Your task to perform on an android device: Add macbook air to the cart on bestbuy Image 0: 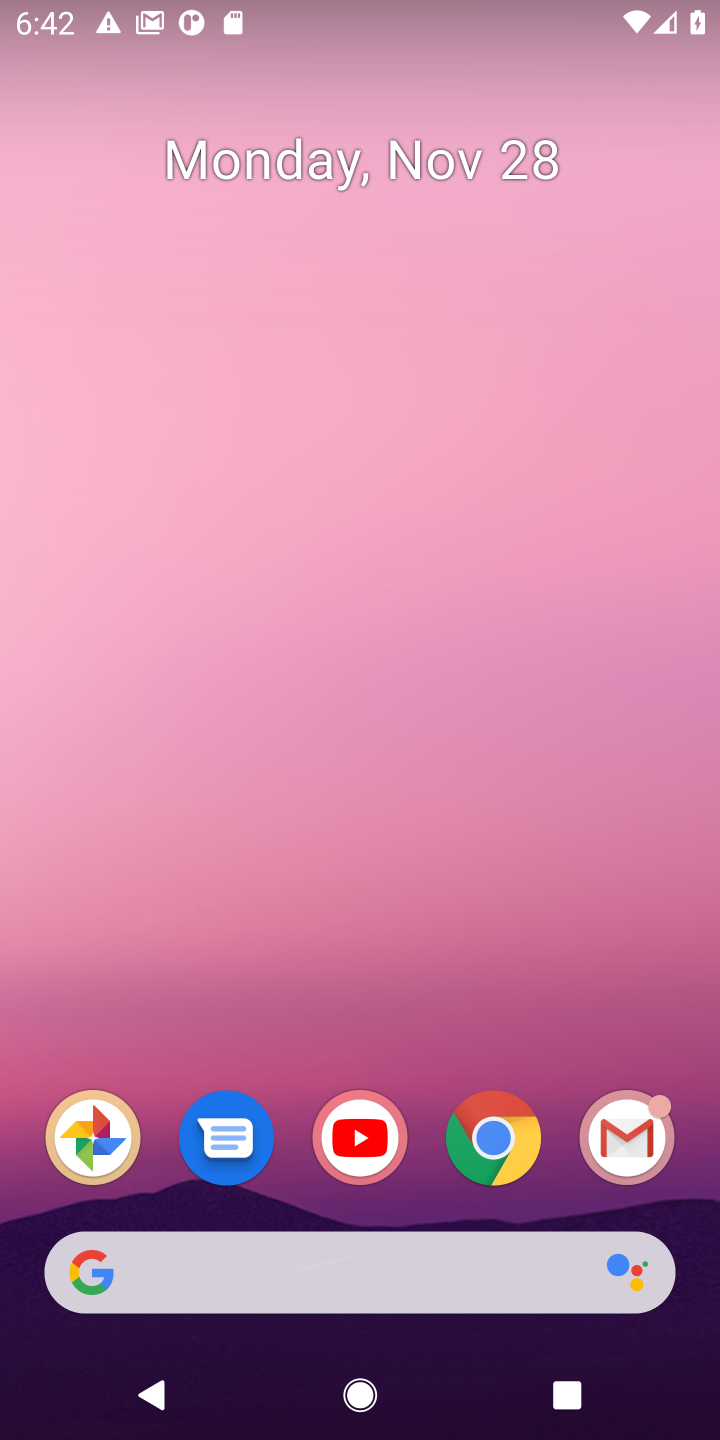
Step 0: click (480, 1142)
Your task to perform on an android device: Add macbook air to the cart on bestbuy Image 1: 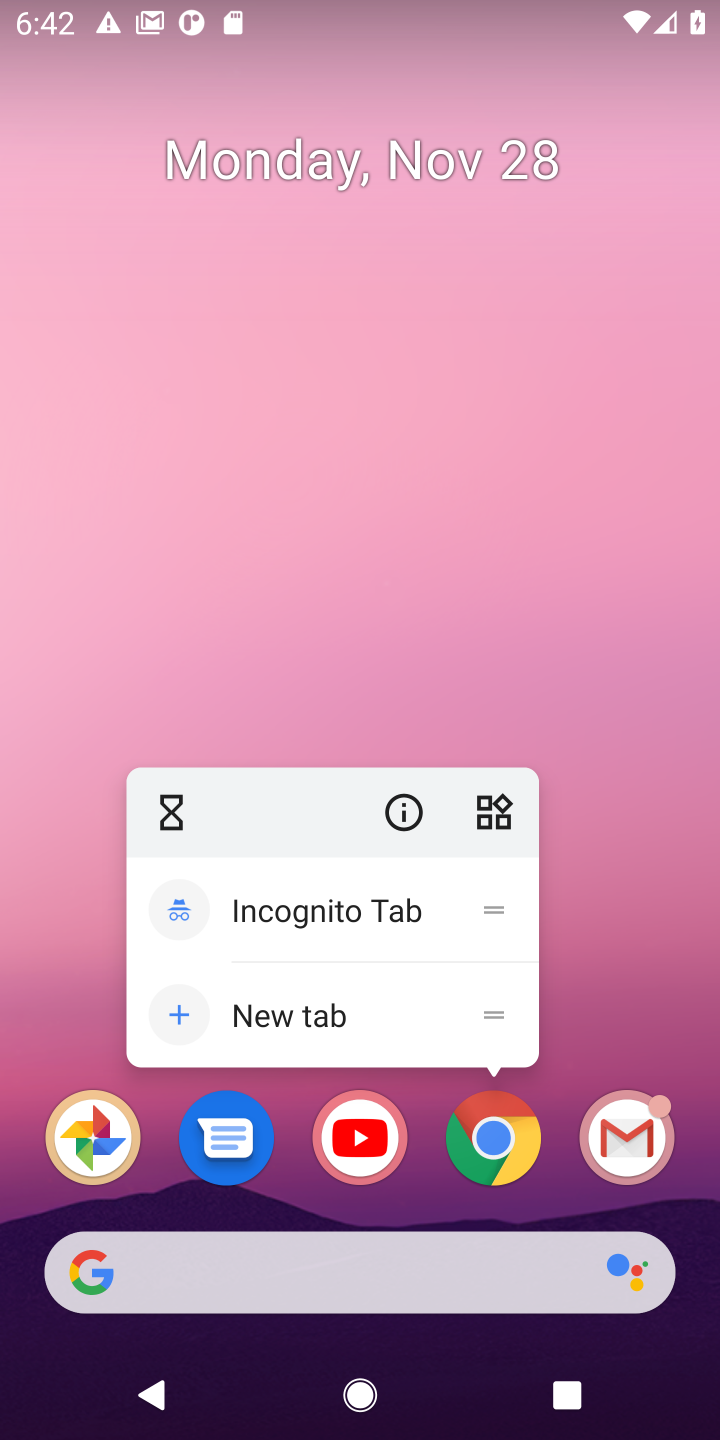
Step 1: click (504, 1147)
Your task to perform on an android device: Add macbook air to the cart on bestbuy Image 2: 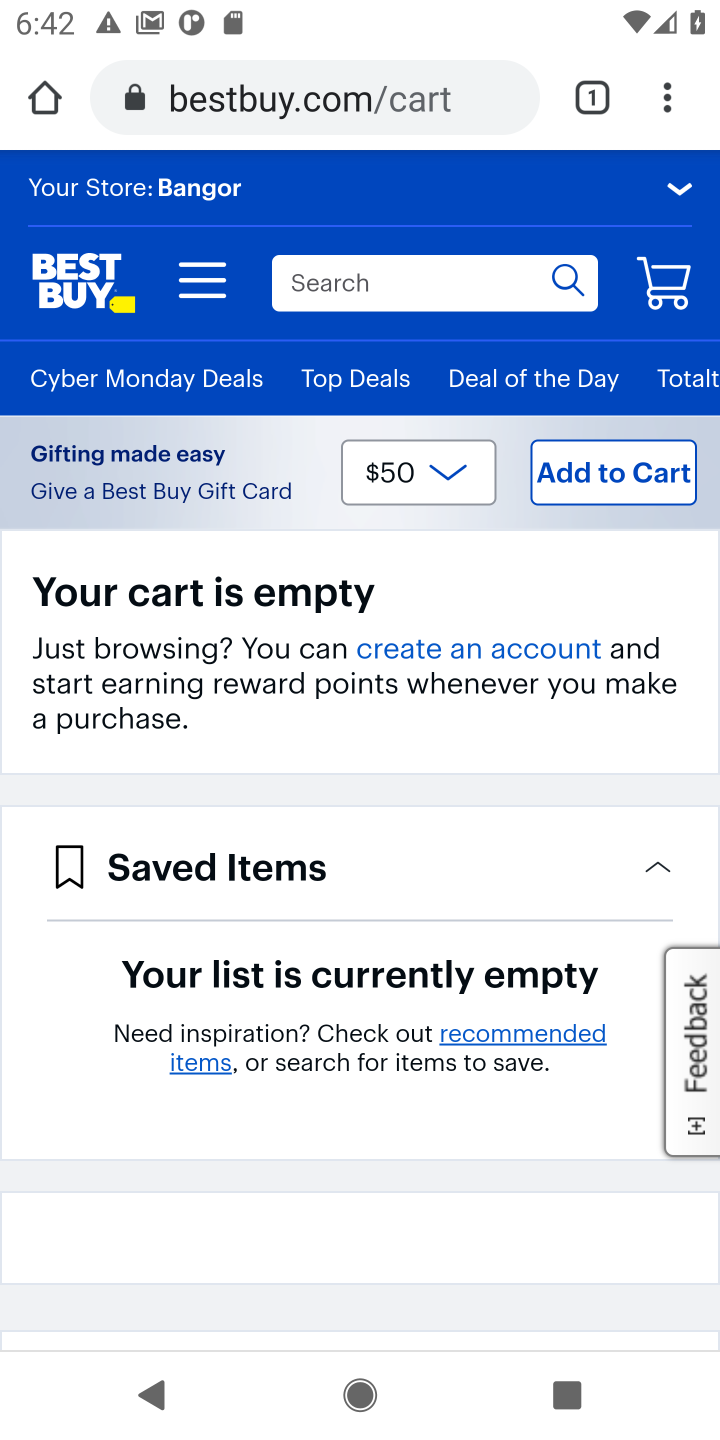
Step 2: click (371, 284)
Your task to perform on an android device: Add macbook air to the cart on bestbuy Image 3: 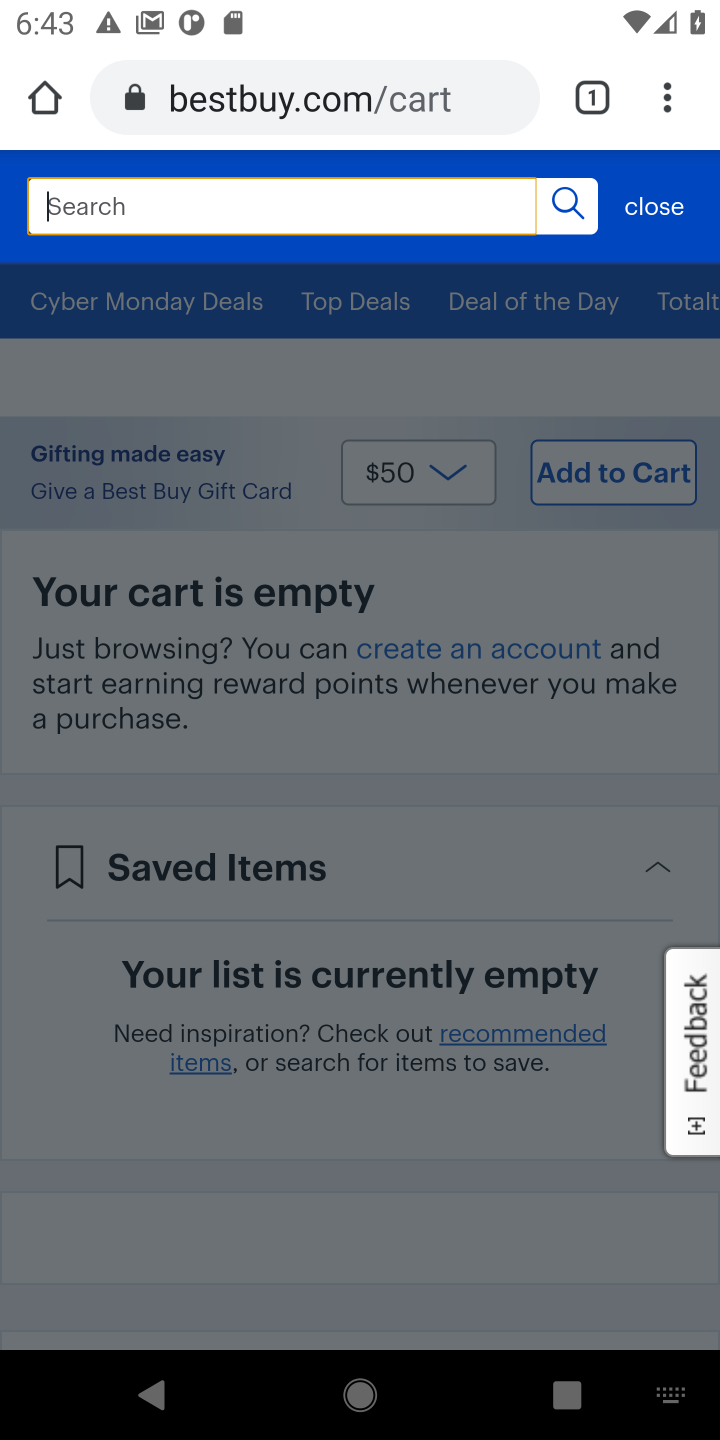
Step 3: type "macbook air"
Your task to perform on an android device: Add macbook air to the cart on bestbuy Image 4: 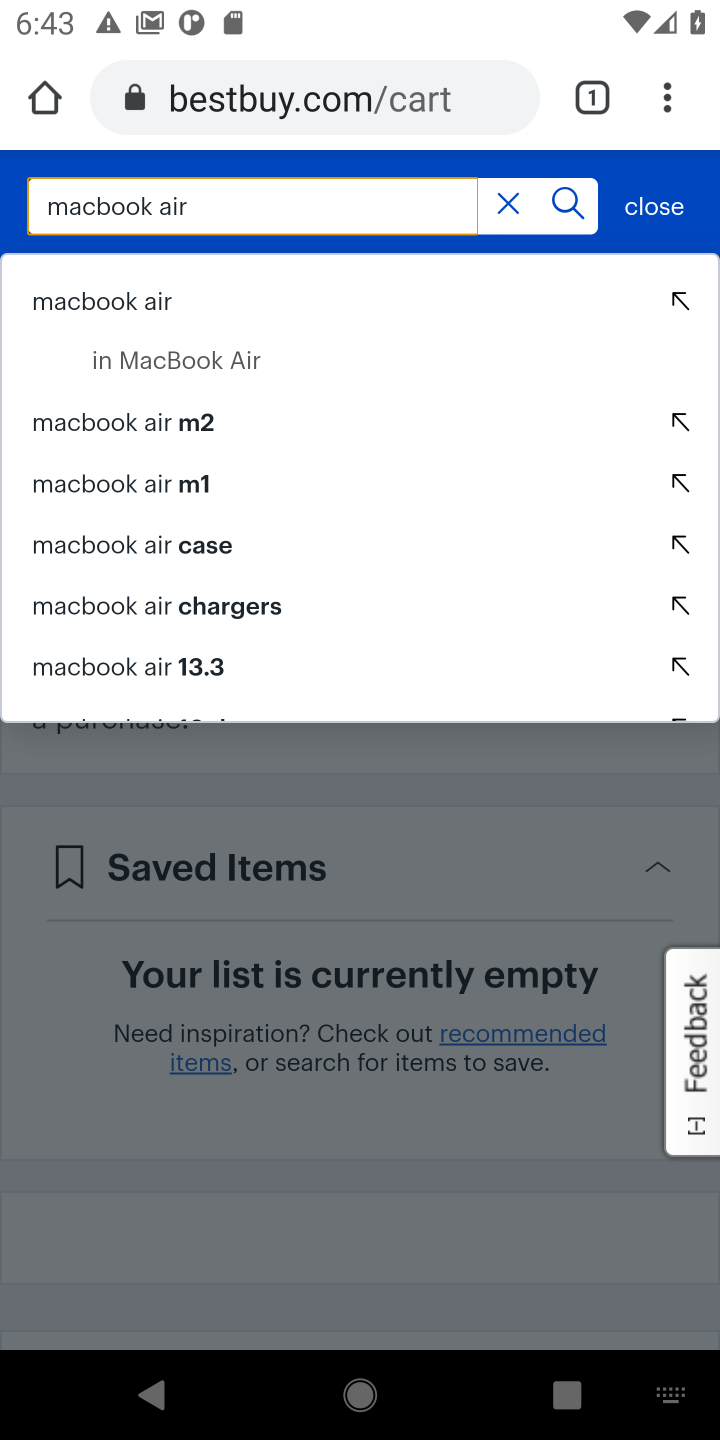
Step 4: click (145, 319)
Your task to perform on an android device: Add macbook air to the cart on bestbuy Image 5: 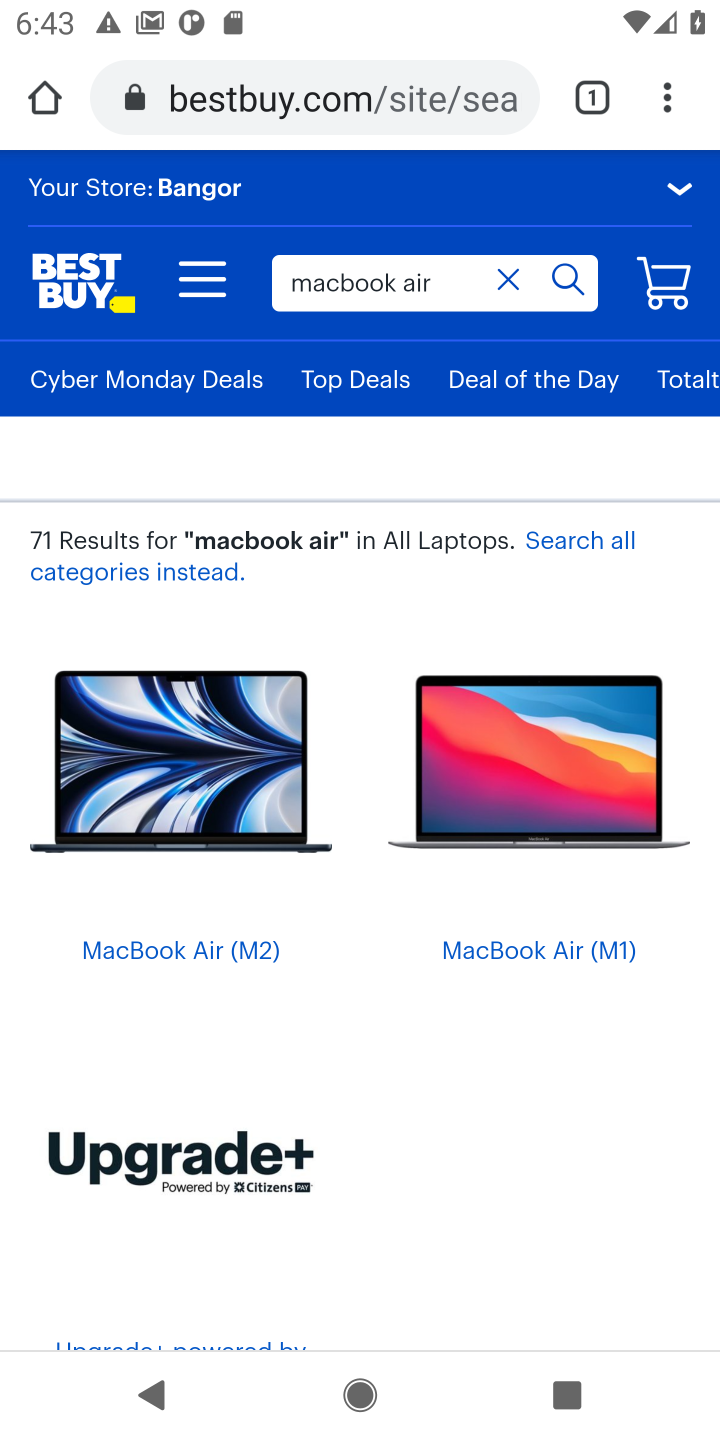
Step 5: drag from (371, 1086) to (341, 623)
Your task to perform on an android device: Add macbook air to the cart on bestbuy Image 6: 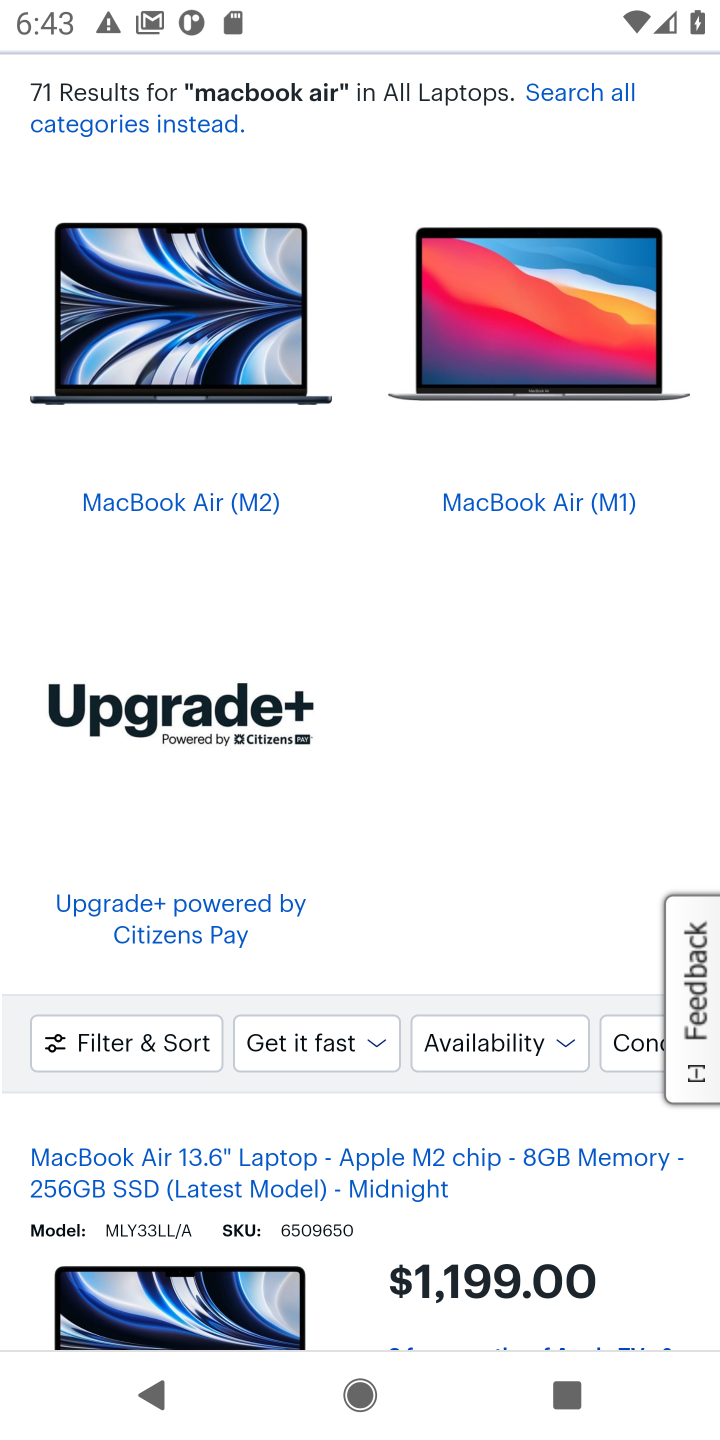
Step 6: drag from (324, 1029) to (342, 498)
Your task to perform on an android device: Add macbook air to the cart on bestbuy Image 7: 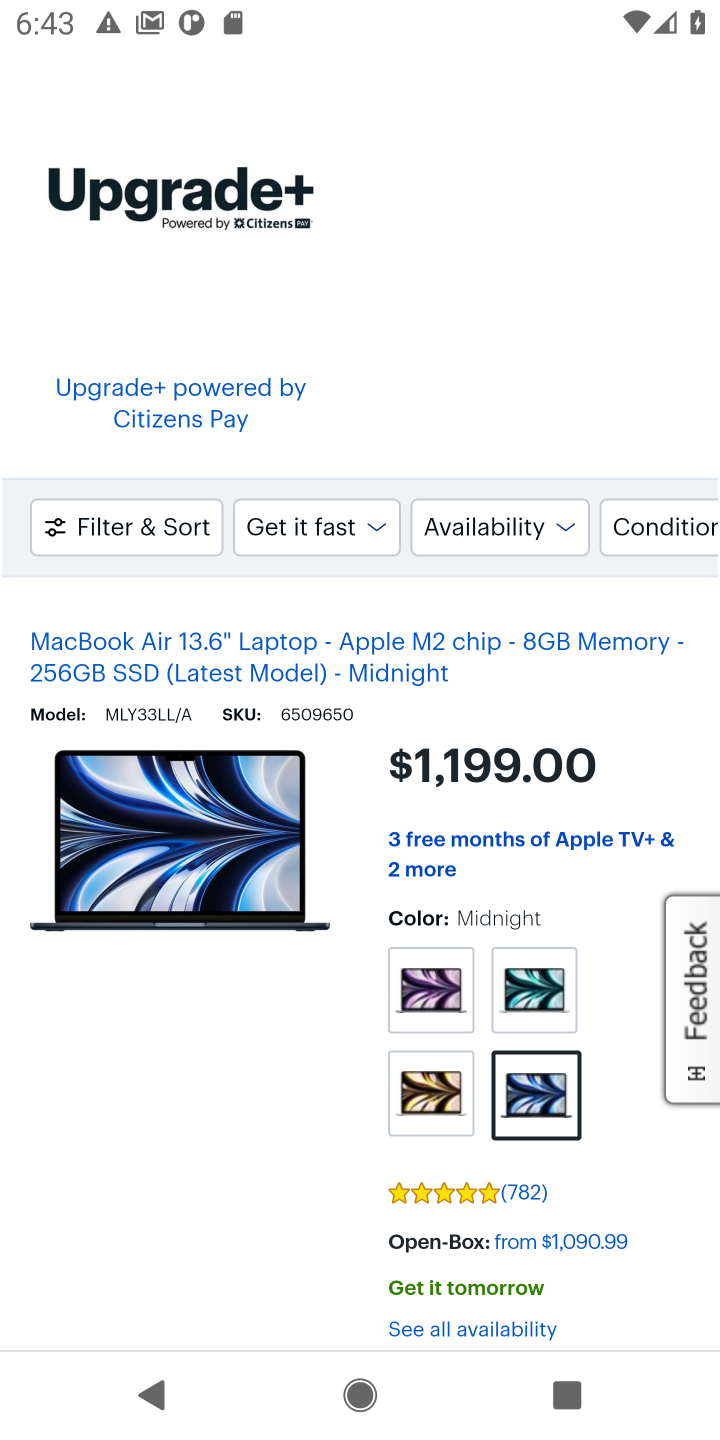
Step 7: drag from (287, 930) to (306, 471)
Your task to perform on an android device: Add macbook air to the cart on bestbuy Image 8: 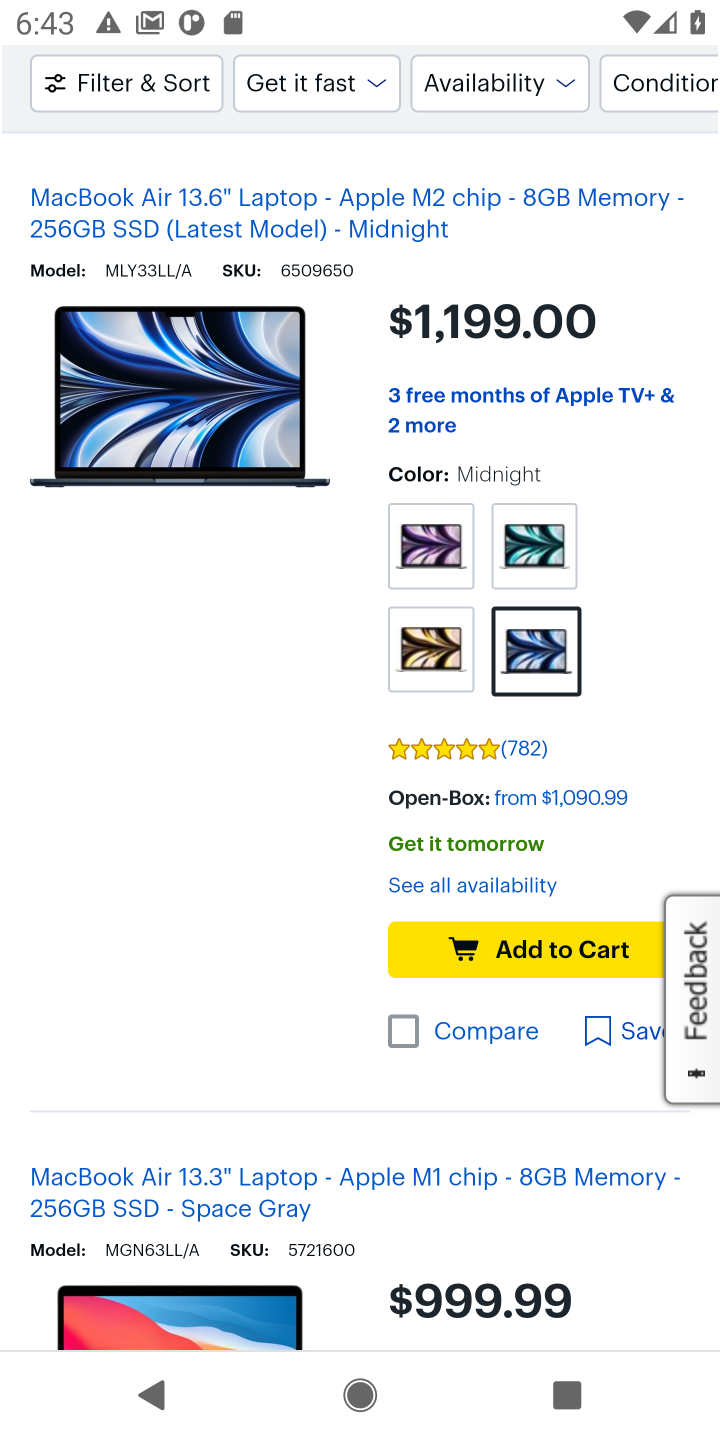
Step 8: click (527, 947)
Your task to perform on an android device: Add macbook air to the cart on bestbuy Image 9: 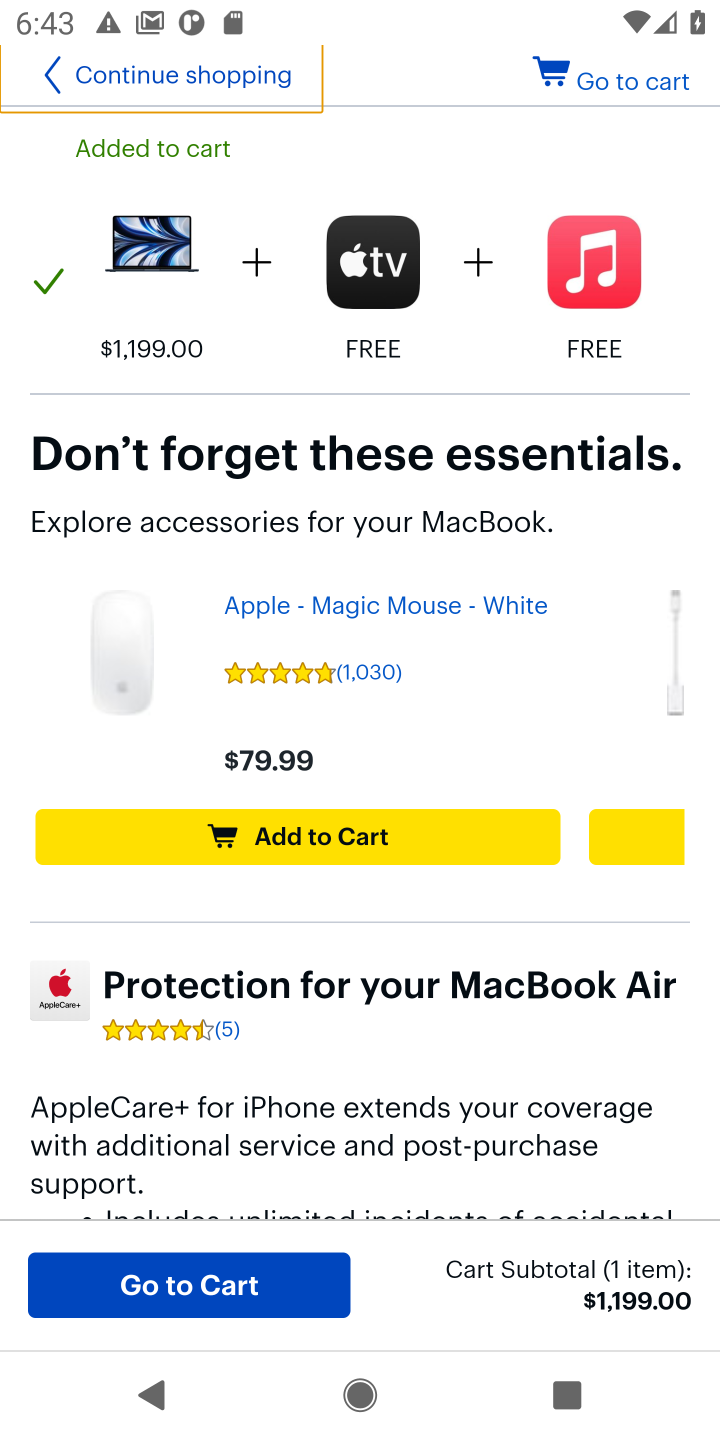
Step 9: task complete